Your task to perform on an android device: allow notifications from all sites in the chrome app Image 0: 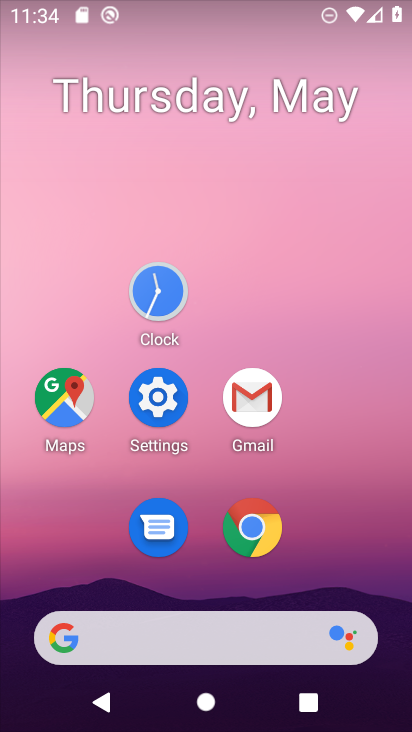
Step 0: click (270, 542)
Your task to perform on an android device: allow notifications from all sites in the chrome app Image 1: 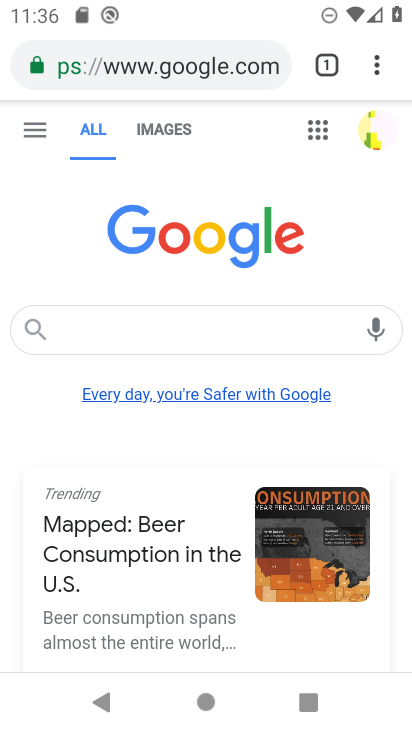
Step 1: click (371, 73)
Your task to perform on an android device: allow notifications from all sites in the chrome app Image 2: 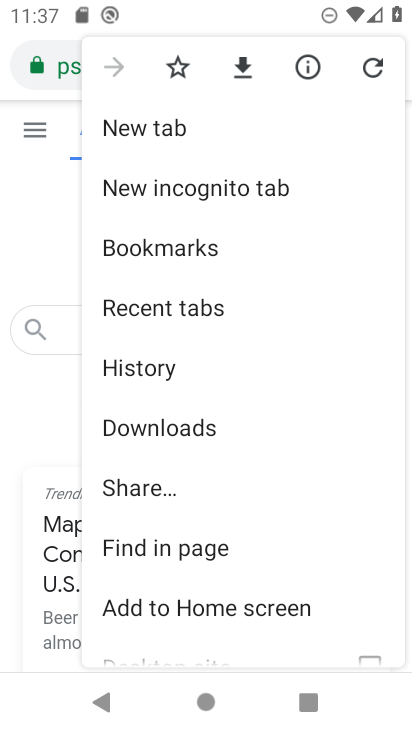
Step 2: drag from (192, 461) to (278, 137)
Your task to perform on an android device: allow notifications from all sites in the chrome app Image 3: 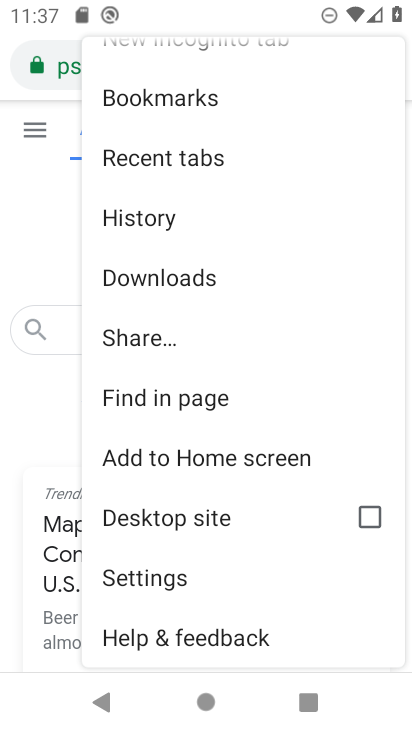
Step 3: click (149, 588)
Your task to perform on an android device: allow notifications from all sites in the chrome app Image 4: 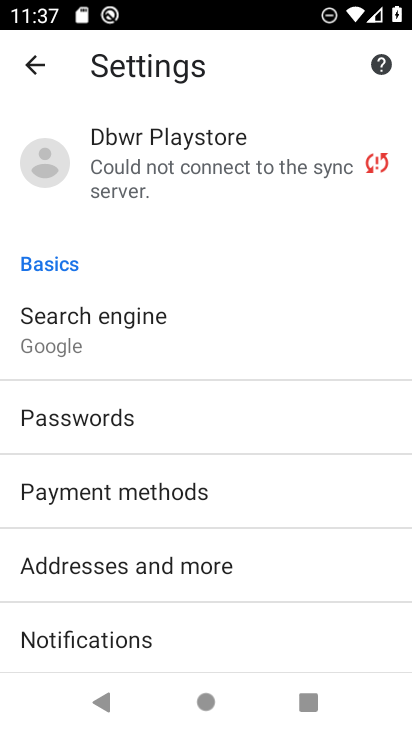
Step 4: task complete